Your task to perform on an android device: Go to Reddit.com Image 0: 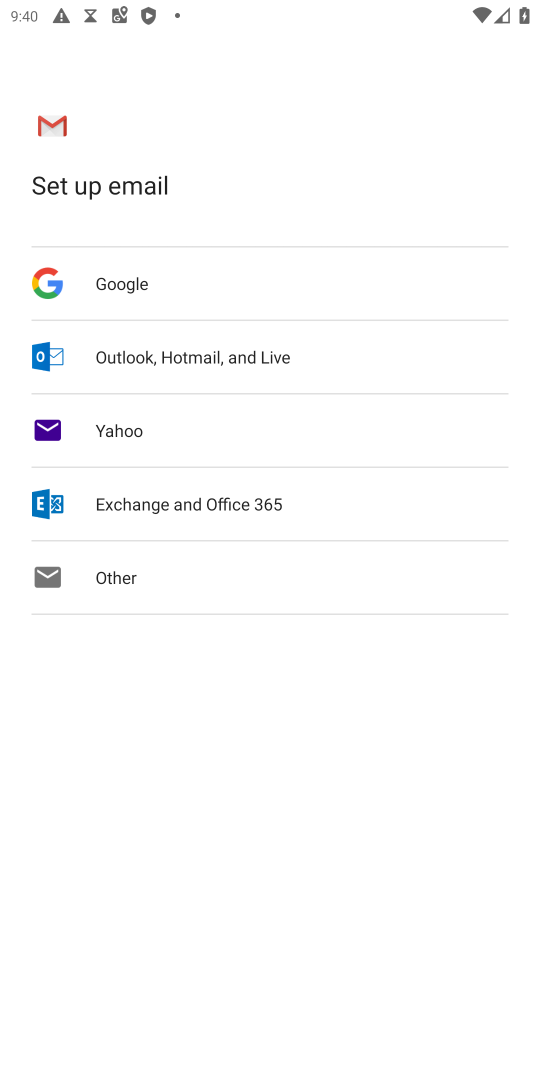
Step 0: press home button
Your task to perform on an android device: Go to Reddit.com Image 1: 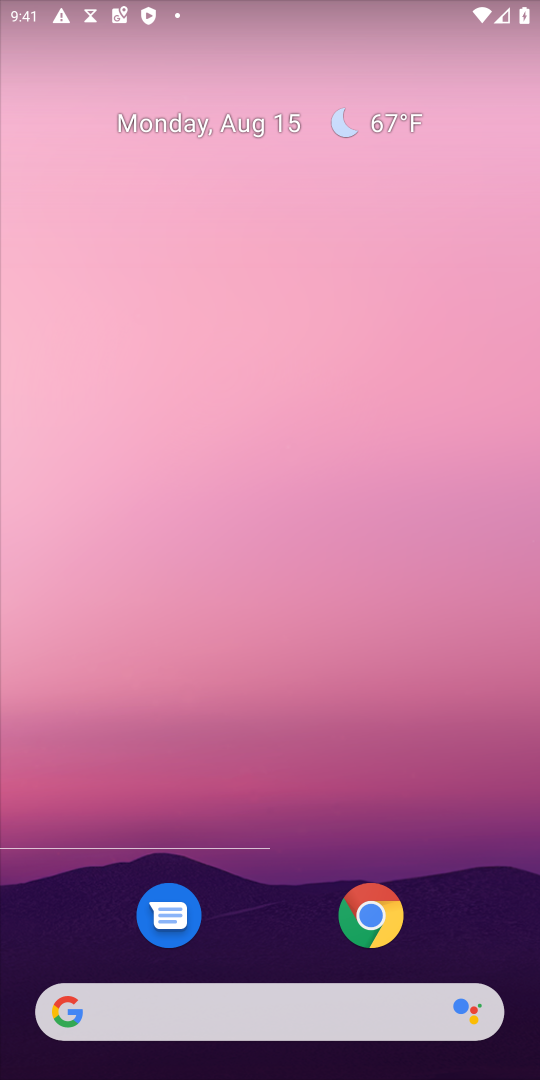
Step 1: click (73, 1002)
Your task to perform on an android device: Go to Reddit.com Image 2: 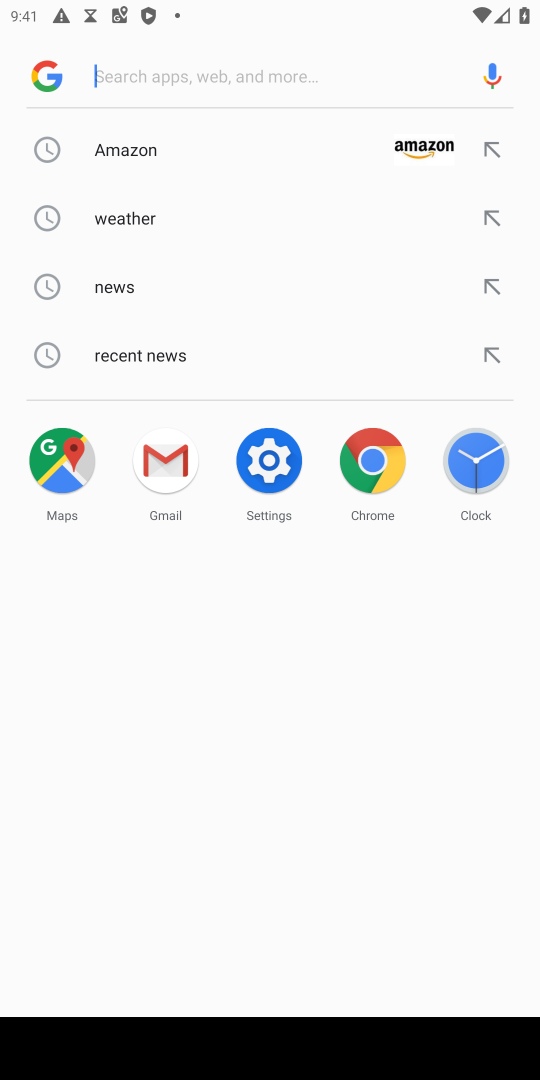
Step 2: type "Reddit.com"
Your task to perform on an android device: Go to Reddit.com Image 3: 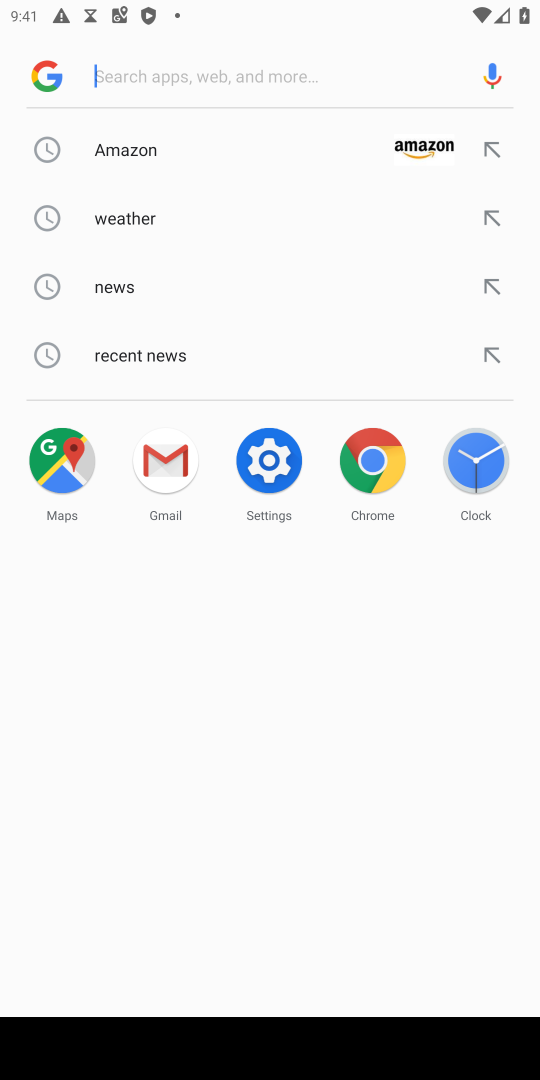
Step 3: click (148, 73)
Your task to perform on an android device: Go to Reddit.com Image 4: 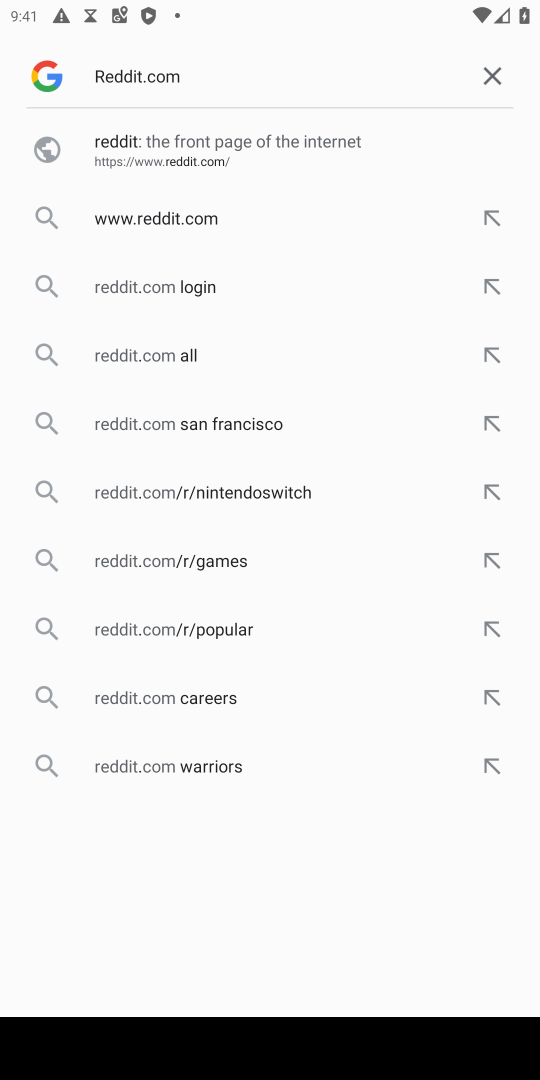
Step 4: press enter
Your task to perform on an android device: Go to Reddit.com Image 5: 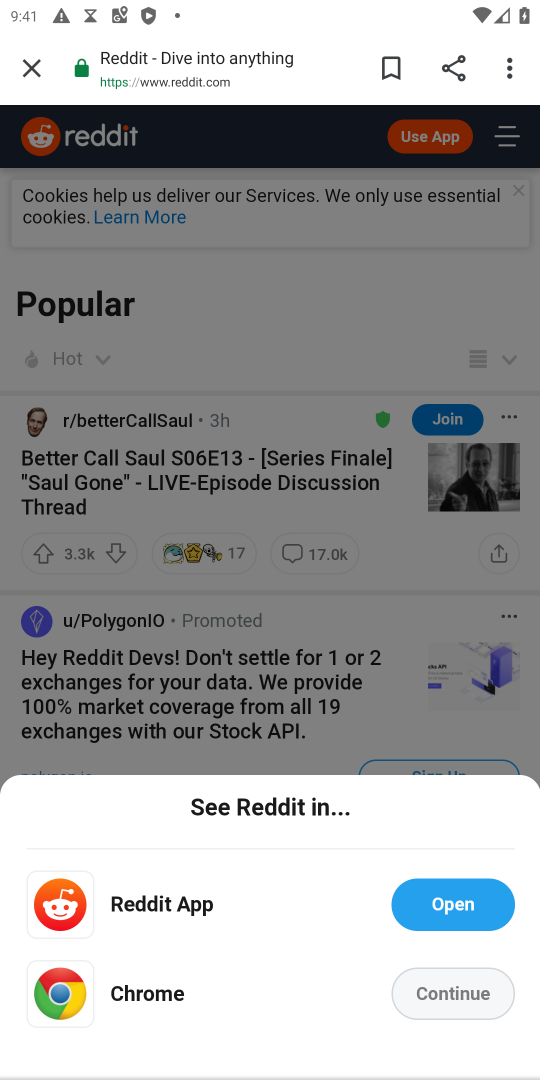
Step 5: task complete